Your task to perform on an android device: delete the emails in spam in the gmail app Image 0: 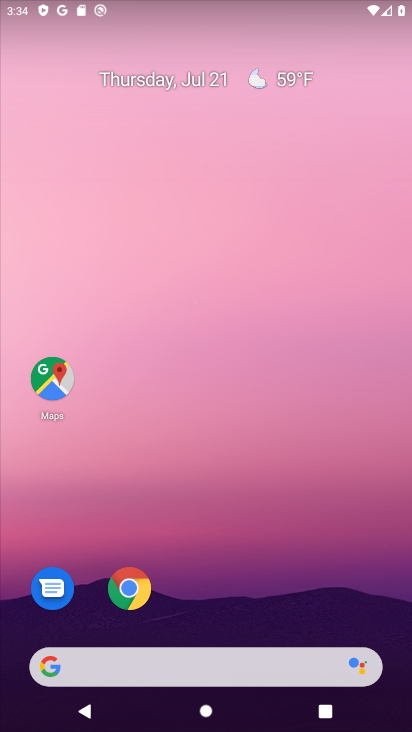
Step 0: drag from (243, 681) to (243, 106)
Your task to perform on an android device: delete the emails in spam in the gmail app Image 1: 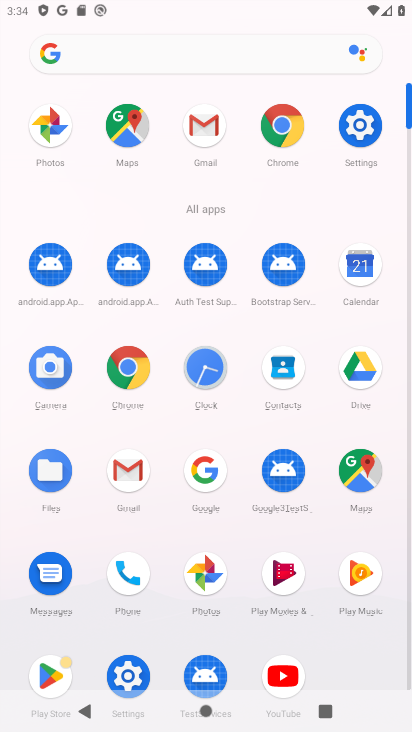
Step 1: click (127, 471)
Your task to perform on an android device: delete the emails in spam in the gmail app Image 2: 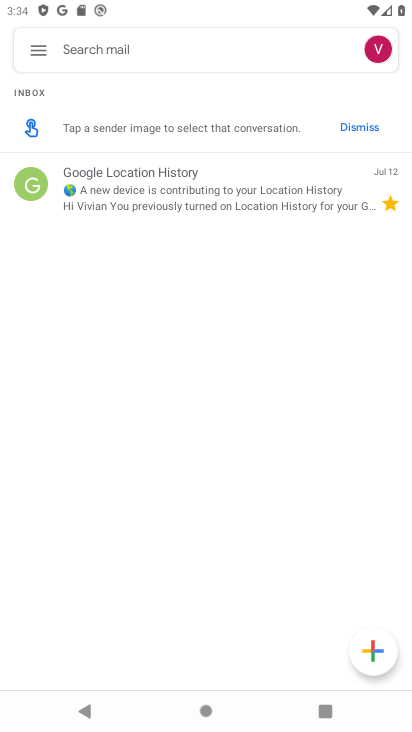
Step 2: click (210, 200)
Your task to perform on an android device: delete the emails in spam in the gmail app Image 3: 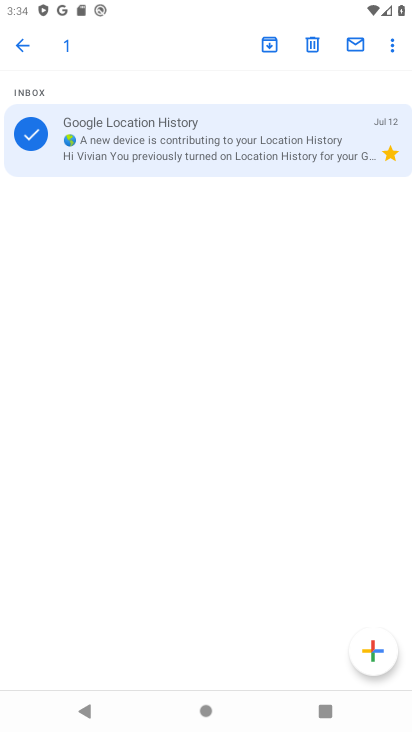
Step 3: click (308, 41)
Your task to perform on an android device: delete the emails in spam in the gmail app Image 4: 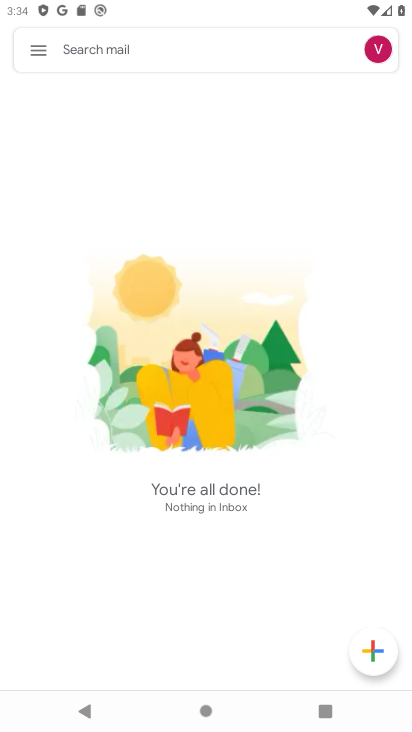
Step 4: click (31, 51)
Your task to perform on an android device: delete the emails in spam in the gmail app Image 5: 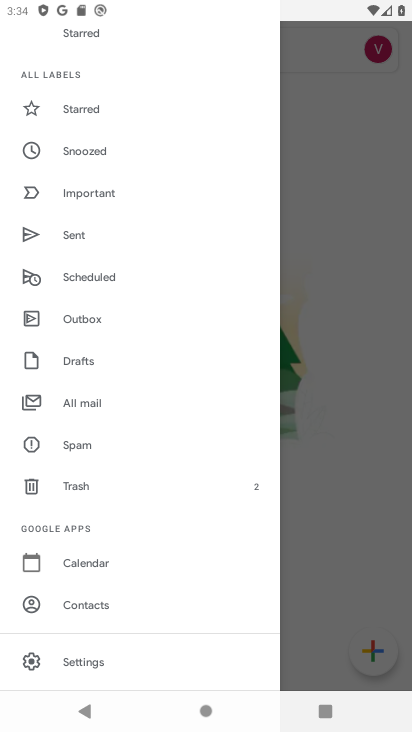
Step 5: click (77, 445)
Your task to perform on an android device: delete the emails in spam in the gmail app Image 6: 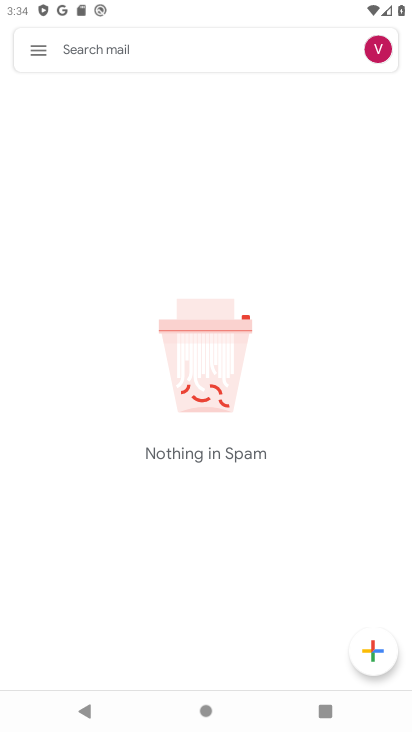
Step 6: task complete